Your task to perform on an android device: delete the emails in spam in the gmail app Image 0: 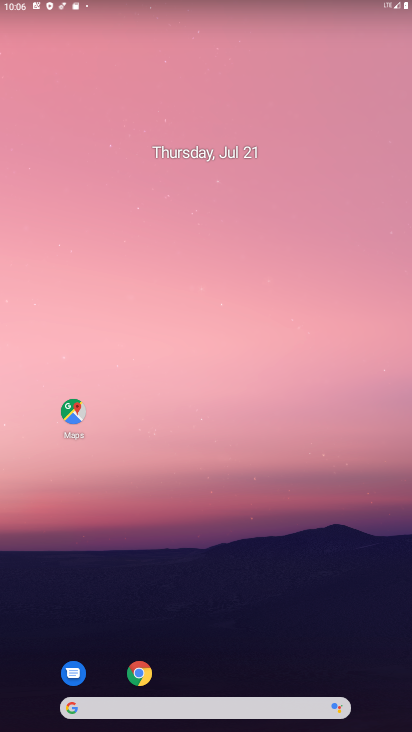
Step 0: drag from (198, 661) to (169, 220)
Your task to perform on an android device: delete the emails in spam in the gmail app Image 1: 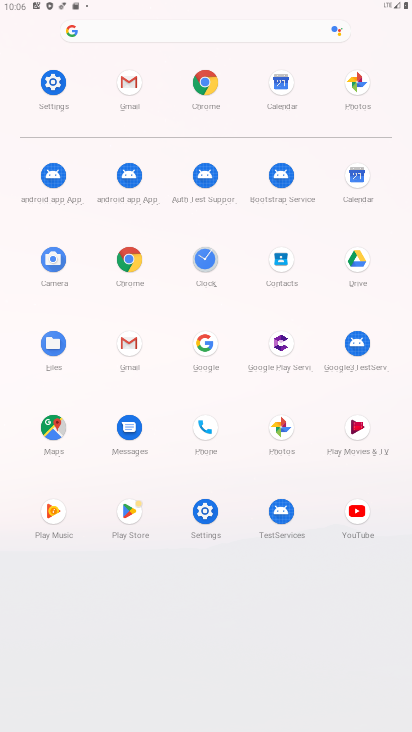
Step 1: click (131, 80)
Your task to perform on an android device: delete the emails in spam in the gmail app Image 2: 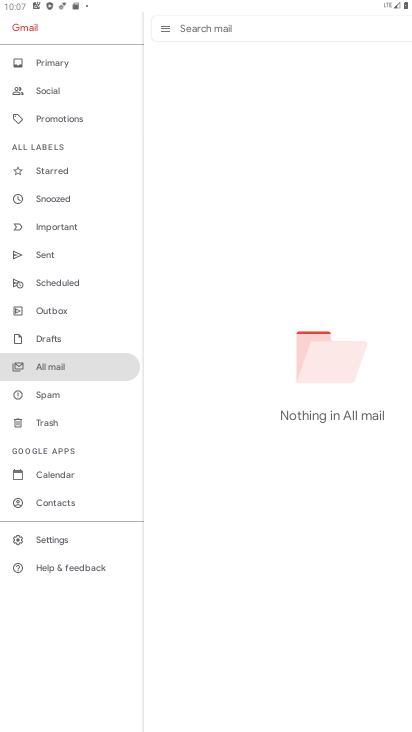
Step 2: click (82, 401)
Your task to perform on an android device: delete the emails in spam in the gmail app Image 3: 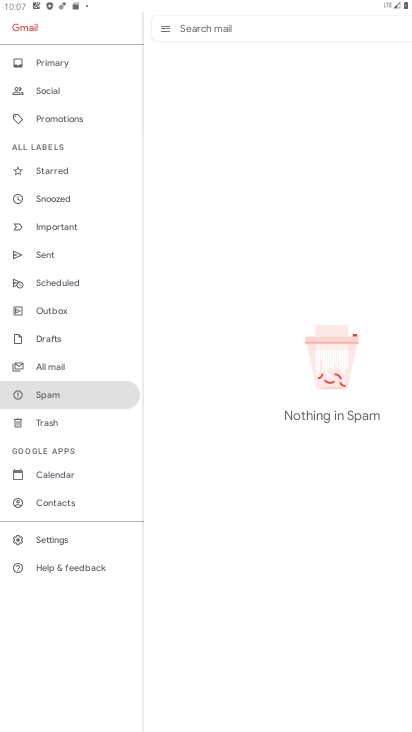
Step 3: task complete